Your task to perform on an android device: Show me the alarms in the clock app Image 0: 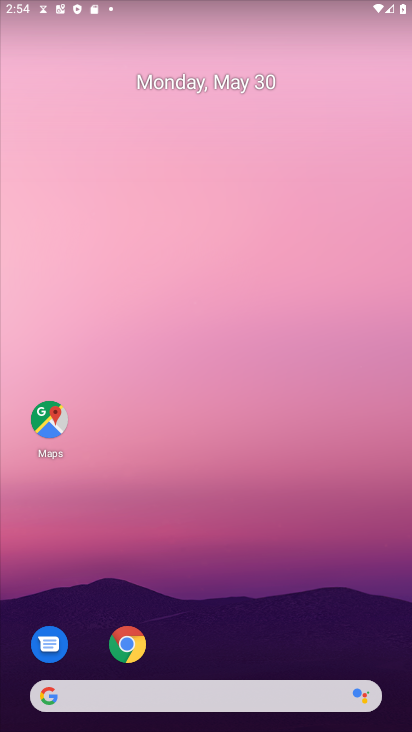
Step 0: press home button
Your task to perform on an android device: Show me the alarms in the clock app Image 1: 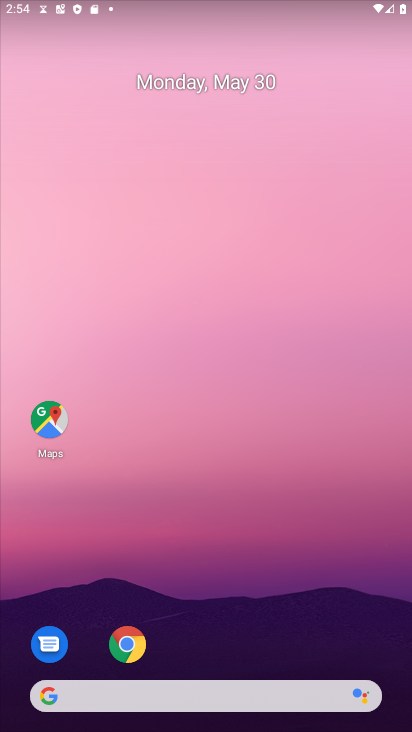
Step 1: drag from (334, 655) to (388, 140)
Your task to perform on an android device: Show me the alarms in the clock app Image 2: 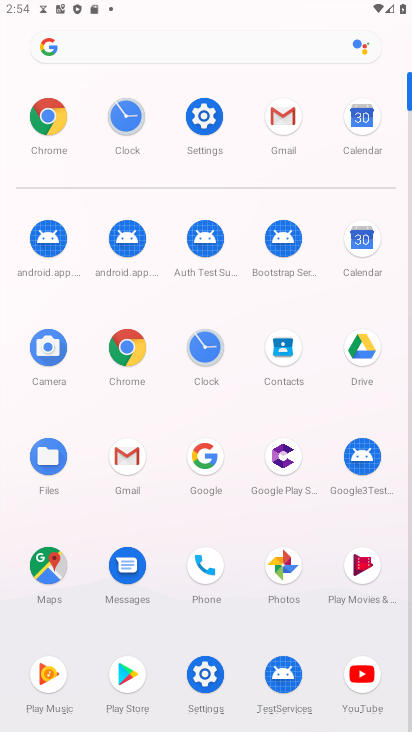
Step 2: click (119, 106)
Your task to perform on an android device: Show me the alarms in the clock app Image 3: 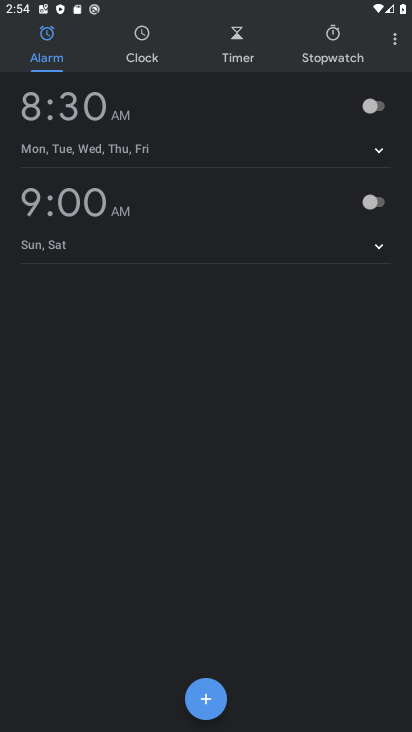
Step 3: task complete